Your task to perform on an android device: Is it going to rain today? Image 0: 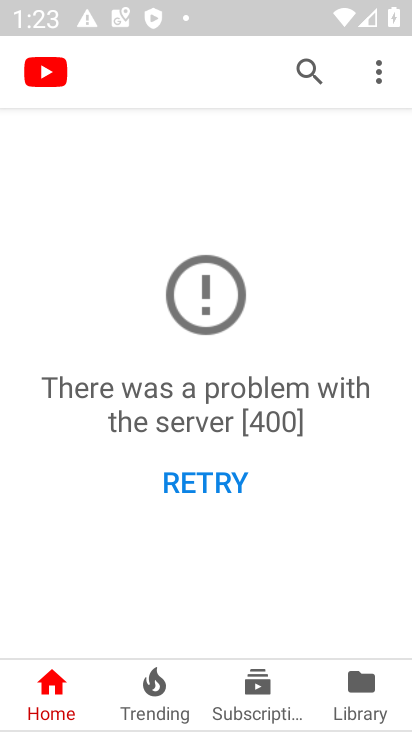
Step 0: press home button
Your task to perform on an android device: Is it going to rain today? Image 1: 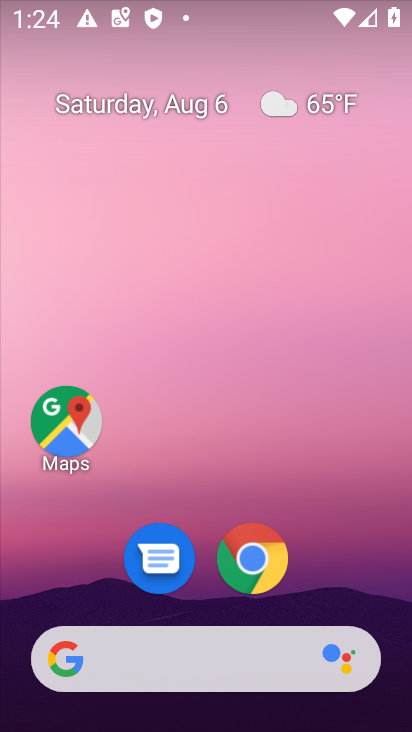
Step 1: click (291, 103)
Your task to perform on an android device: Is it going to rain today? Image 2: 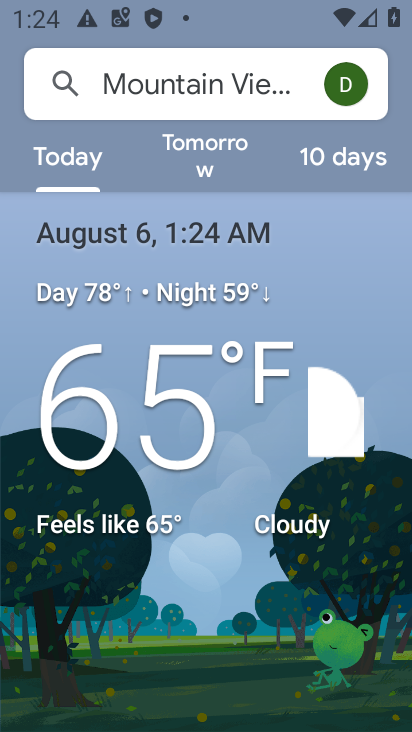
Step 2: task complete